Your task to perform on an android device: toggle translation in the chrome app Image 0: 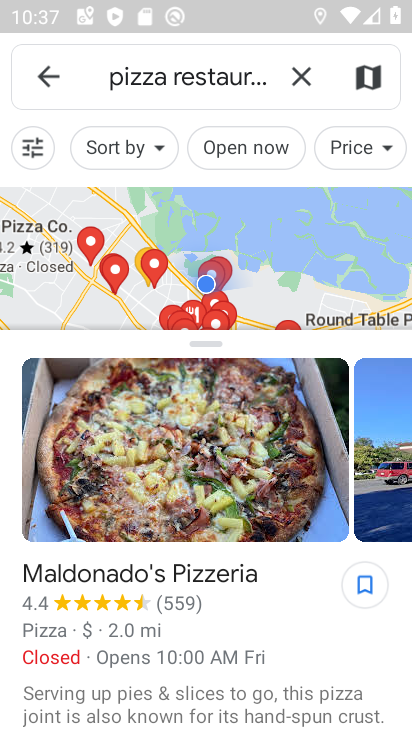
Step 0: press home button
Your task to perform on an android device: toggle translation in the chrome app Image 1: 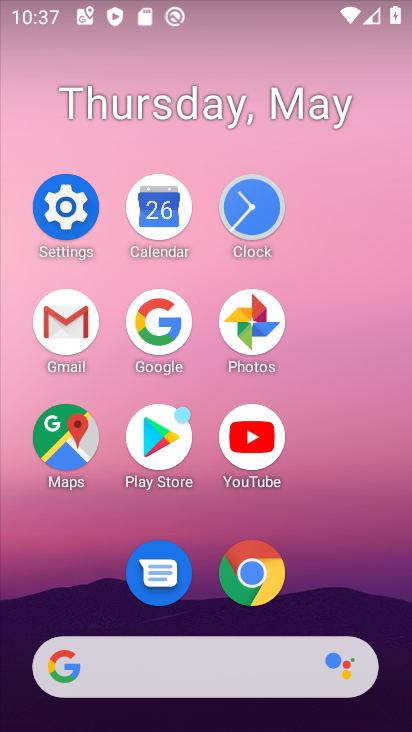
Step 1: click (272, 587)
Your task to perform on an android device: toggle translation in the chrome app Image 2: 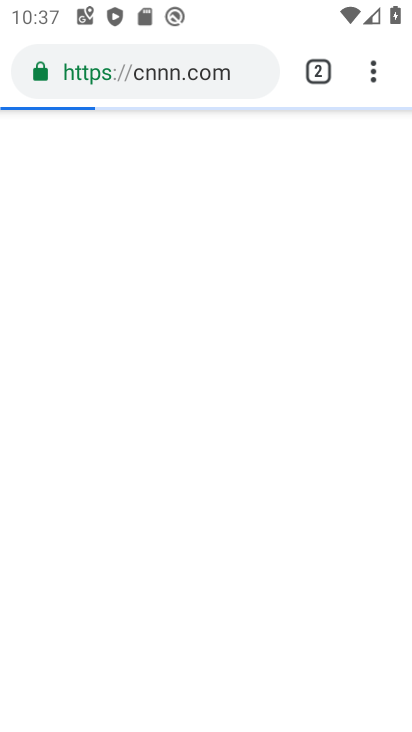
Step 2: click (365, 51)
Your task to perform on an android device: toggle translation in the chrome app Image 3: 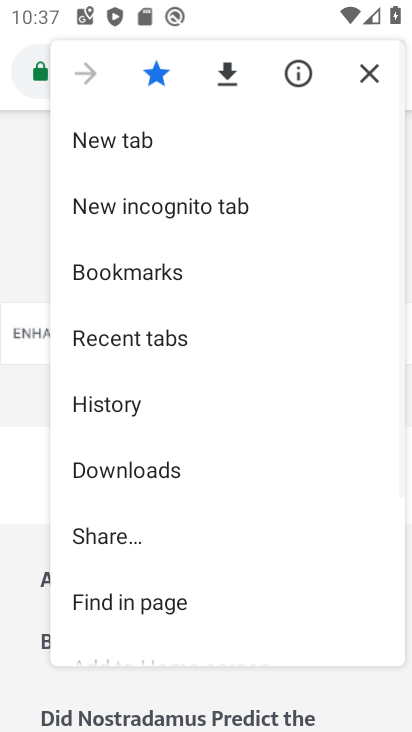
Step 3: drag from (158, 531) to (202, 209)
Your task to perform on an android device: toggle translation in the chrome app Image 4: 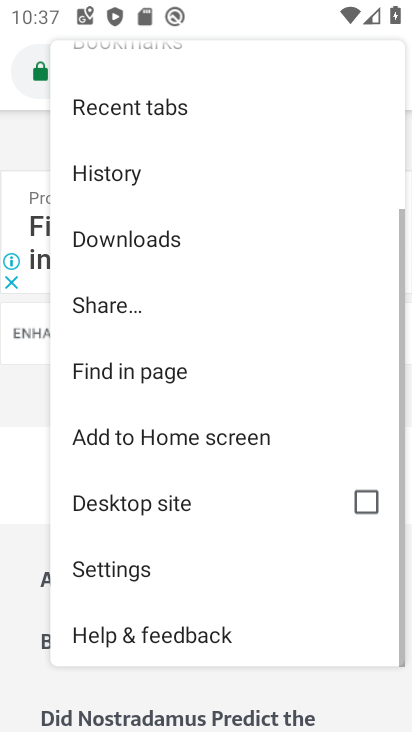
Step 4: click (145, 561)
Your task to perform on an android device: toggle translation in the chrome app Image 5: 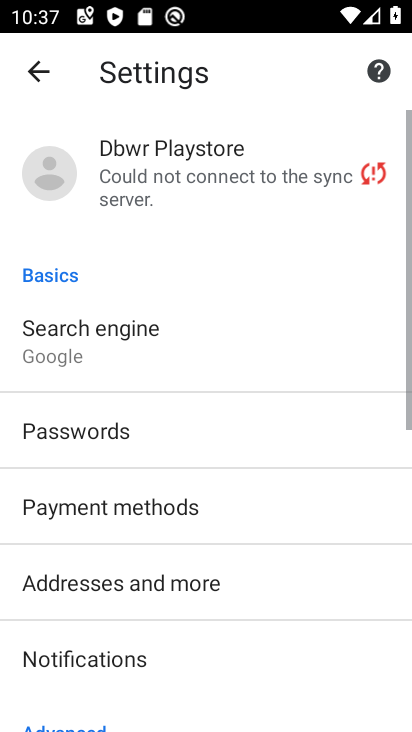
Step 5: drag from (145, 550) to (186, 141)
Your task to perform on an android device: toggle translation in the chrome app Image 6: 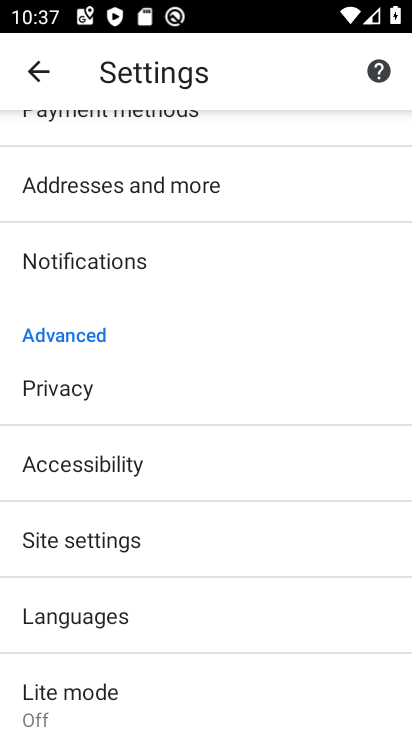
Step 6: click (122, 617)
Your task to perform on an android device: toggle translation in the chrome app Image 7: 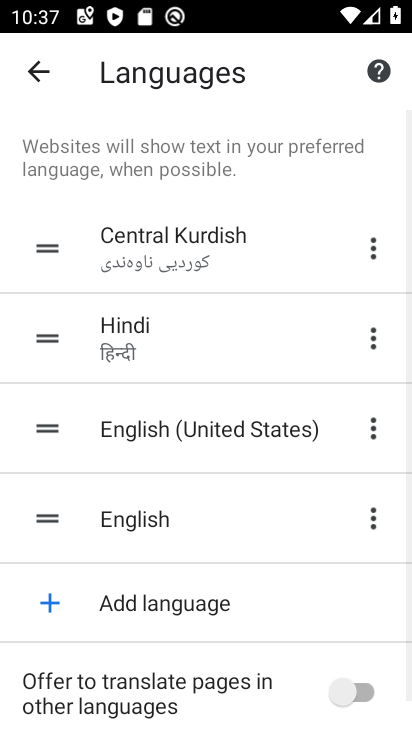
Step 7: click (355, 700)
Your task to perform on an android device: toggle translation in the chrome app Image 8: 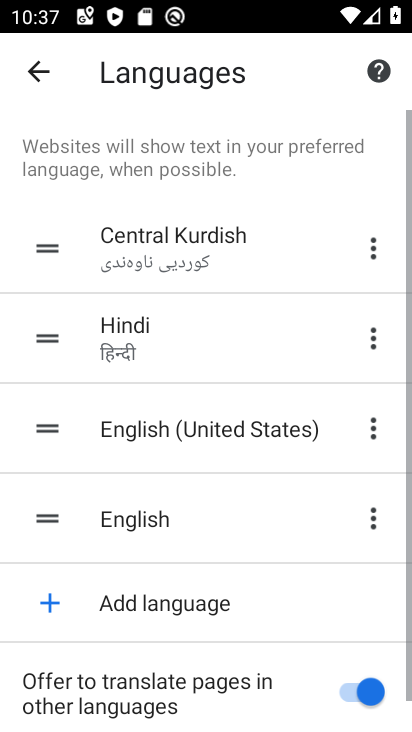
Step 8: task complete